Your task to perform on an android device: Check the news Image 0: 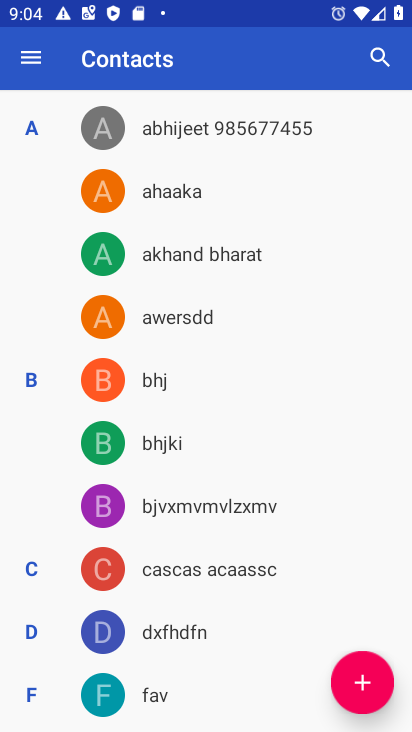
Step 0: press home button
Your task to perform on an android device: Check the news Image 1: 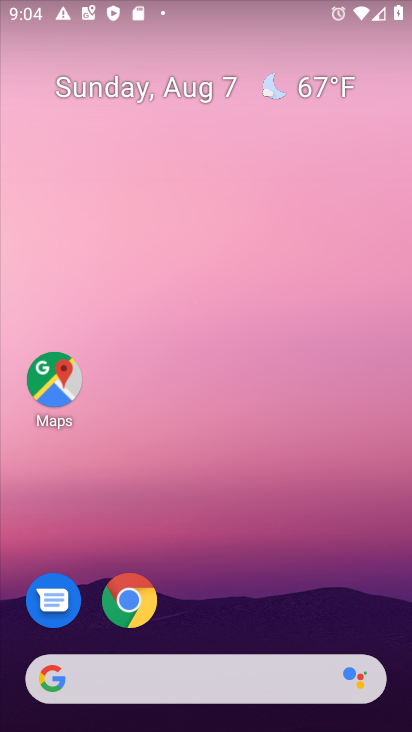
Step 1: click (177, 686)
Your task to perform on an android device: Check the news Image 2: 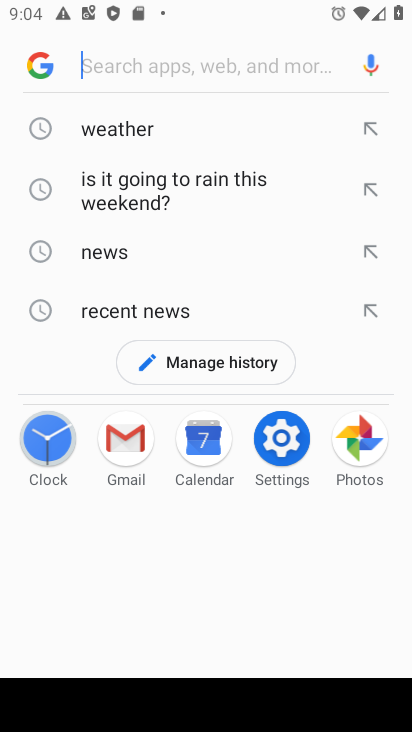
Step 2: click (99, 249)
Your task to perform on an android device: Check the news Image 3: 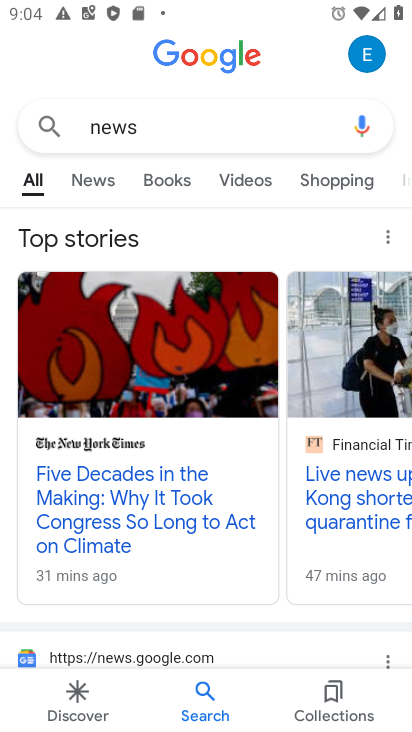
Step 3: task complete